Your task to perform on an android device: Open maps Image 0: 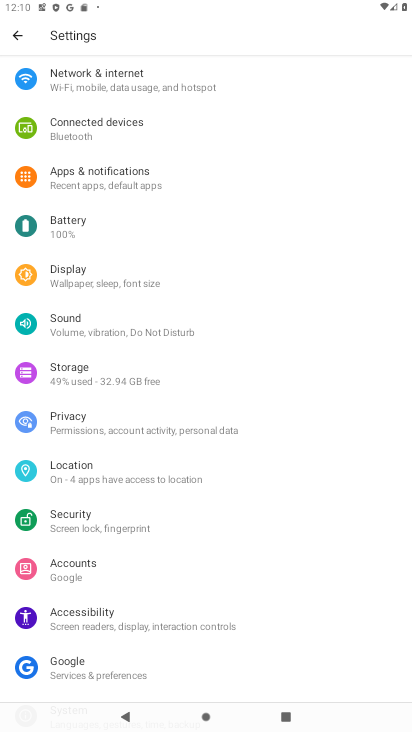
Step 0: press home button
Your task to perform on an android device: Open maps Image 1: 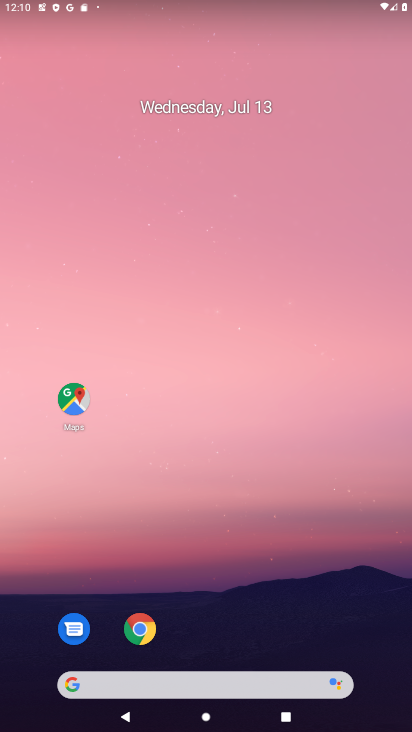
Step 1: drag from (198, 668) to (250, 275)
Your task to perform on an android device: Open maps Image 2: 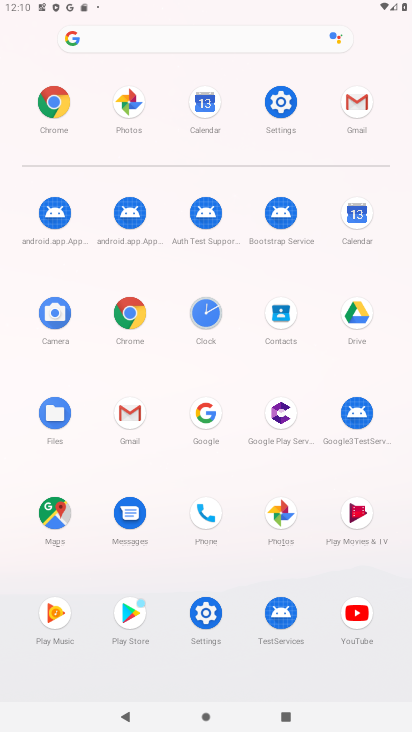
Step 2: click (45, 504)
Your task to perform on an android device: Open maps Image 3: 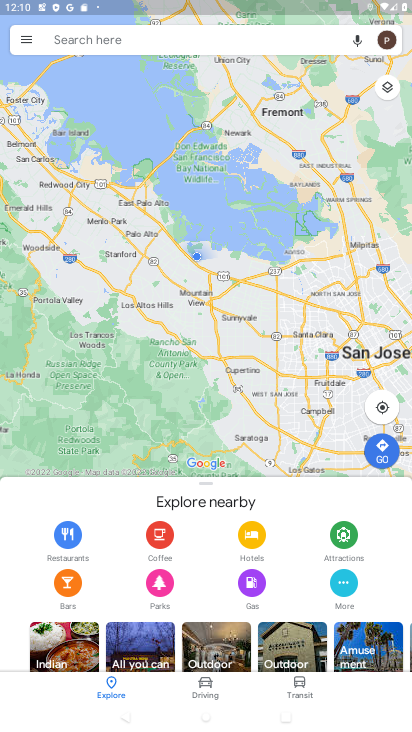
Step 3: task complete